Your task to perform on an android device: turn off smart reply in the gmail app Image 0: 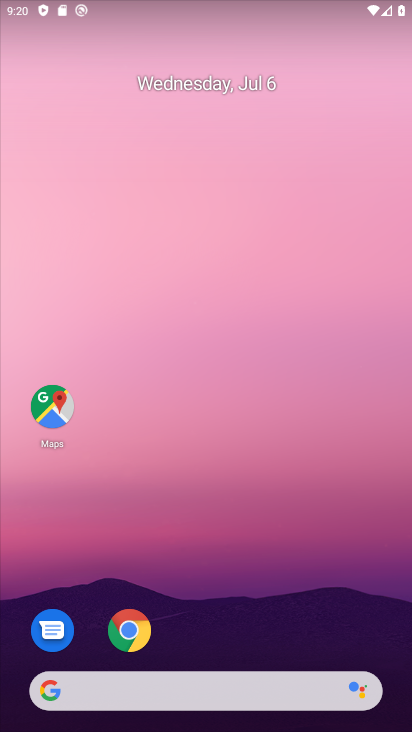
Step 0: drag from (349, 639) to (284, 57)
Your task to perform on an android device: turn off smart reply in the gmail app Image 1: 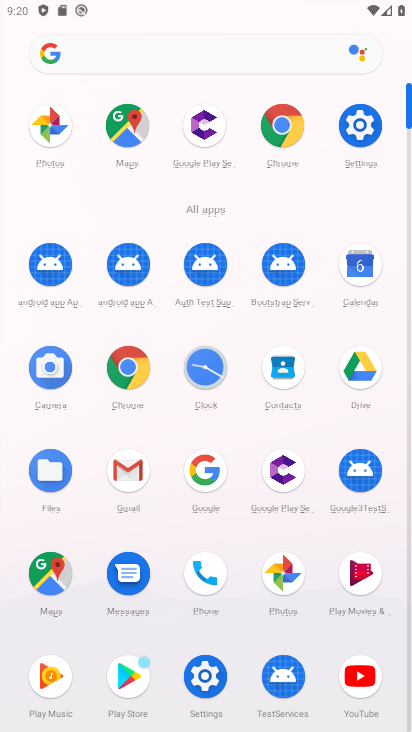
Step 1: click (125, 472)
Your task to perform on an android device: turn off smart reply in the gmail app Image 2: 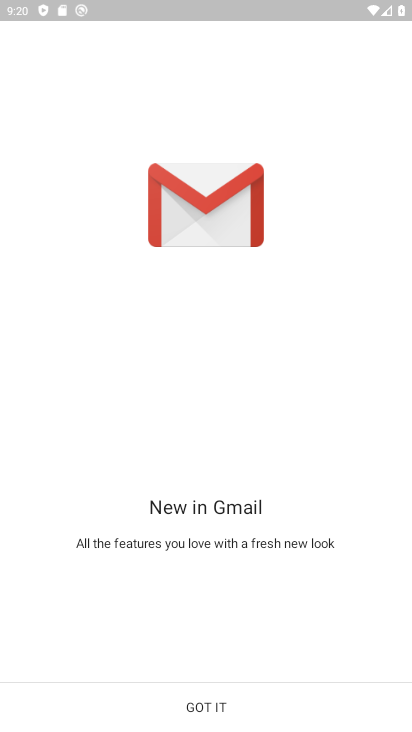
Step 2: click (206, 700)
Your task to perform on an android device: turn off smart reply in the gmail app Image 3: 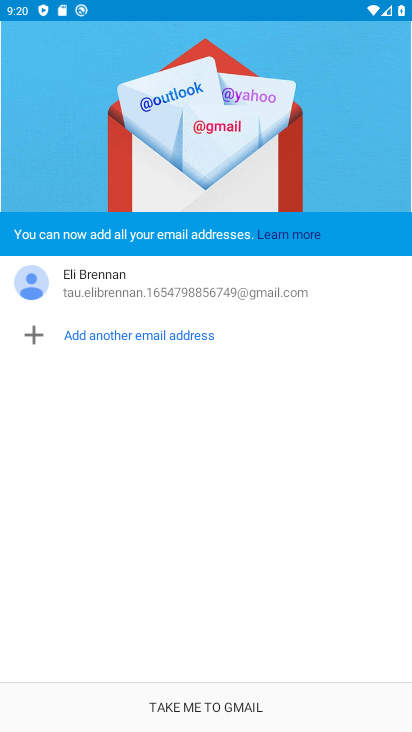
Step 3: click (207, 706)
Your task to perform on an android device: turn off smart reply in the gmail app Image 4: 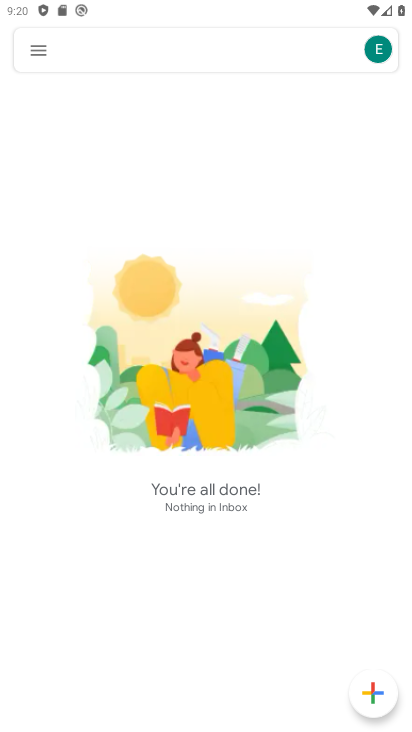
Step 4: click (38, 56)
Your task to perform on an android device: turn off smart reply in the gmail app Image 5: 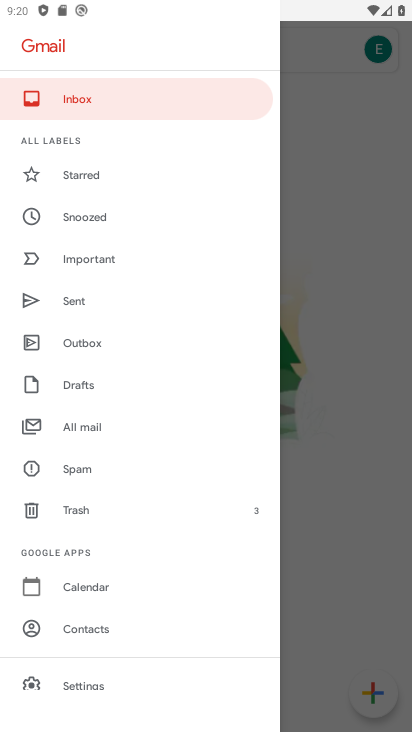
Step 5: drag from (156, 660) to (174, 374)
Your task to perform on an android device: turn off smart reply in the gmail app Image 6: 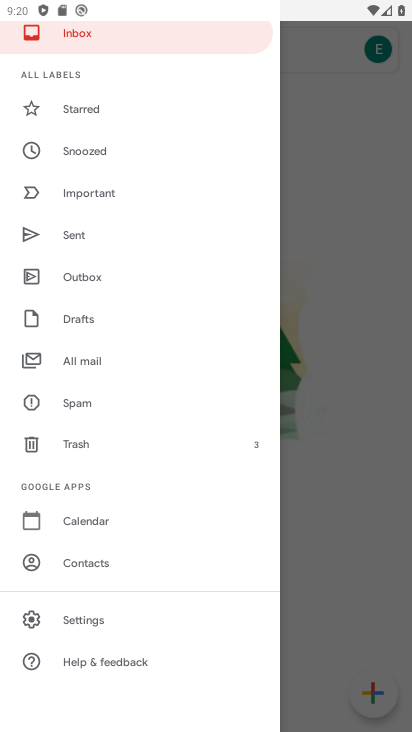
Step 6: click (85, 619)
Your task to perform on an android device: turn off smart reply in the gmail app Image 7: 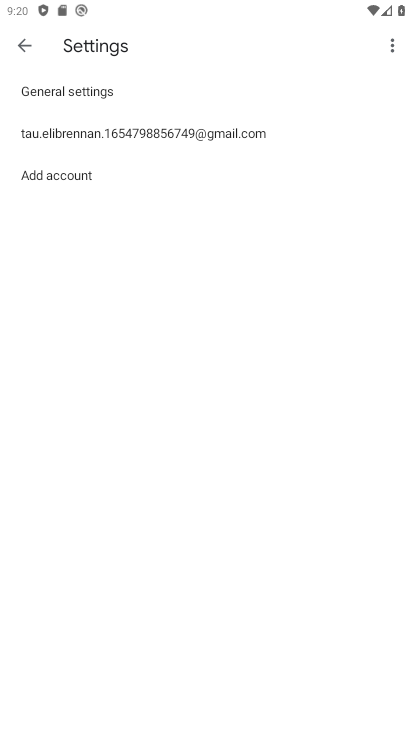
Step 7: click (105, 154)
Your task to perform on an android device: turn off smart reply in the gmail app Image 8: 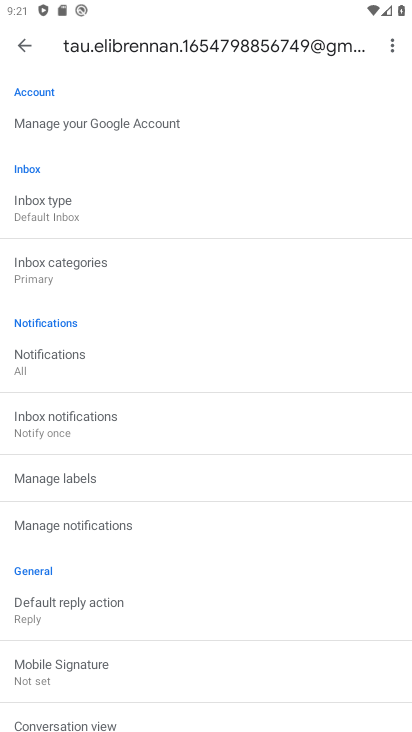
Step 8: drag from (158, 597) to (208, 276)
Your task to perform on an android device: turn off smart reply in the gmail app Image 9: 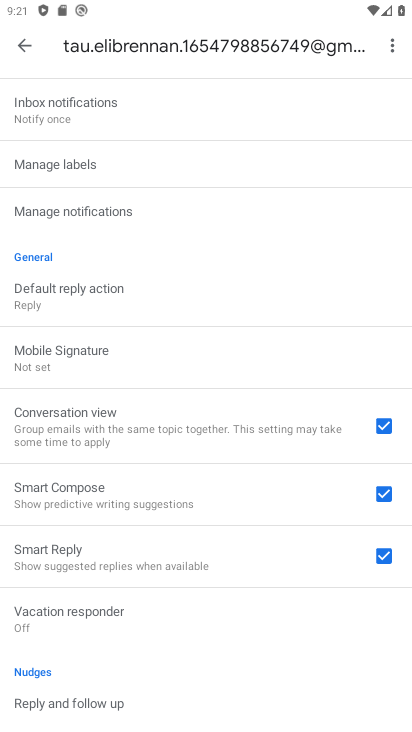
Step 9: click (389, 557)
Your task to perform on an android device: turn off smart reply in the gmail app Image 10: 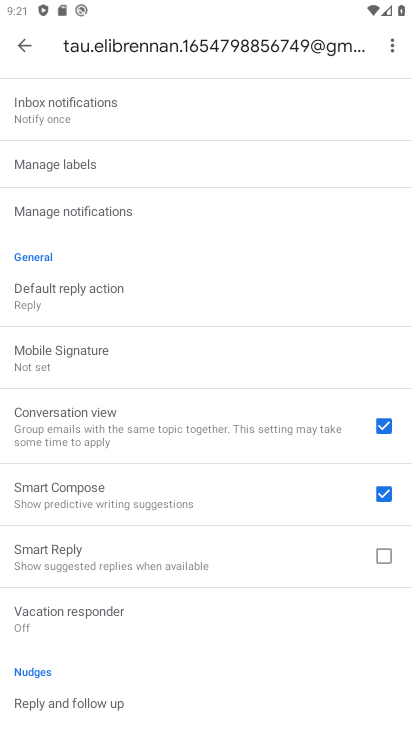
Step 10: task complete